Your task to perform on an android device: open app "PUBG MOBILE" (install if not already installed) and enter user name: "phenomenologically@gmail.com" and password: "artillery" Image 0: 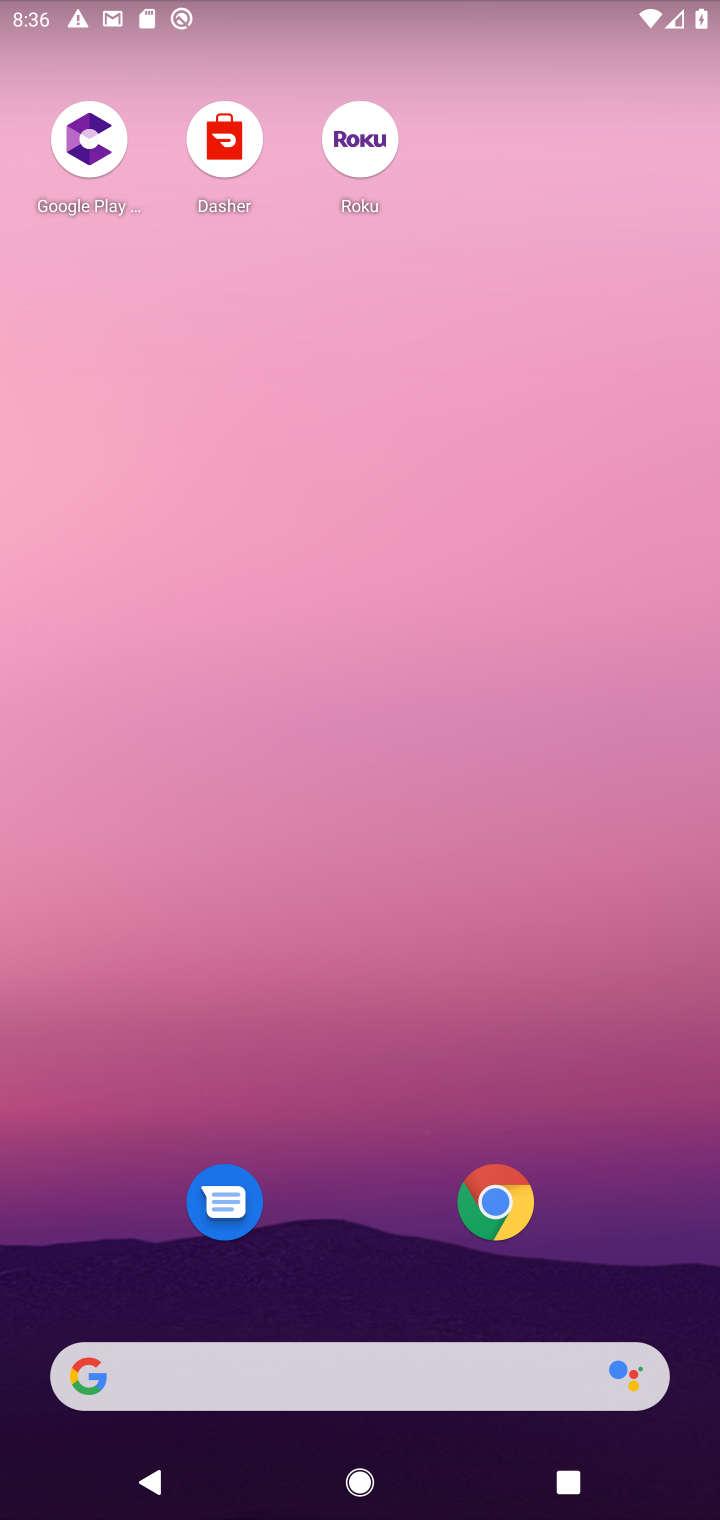
Step 0: drag from (601, 952) to (530, 158)
Your task to perform on an android device: open app "PUBG MOBILE" (install if not already installed) and enter user name: "phenomenologically@gmail.com" and password: "artillery" Image 1: 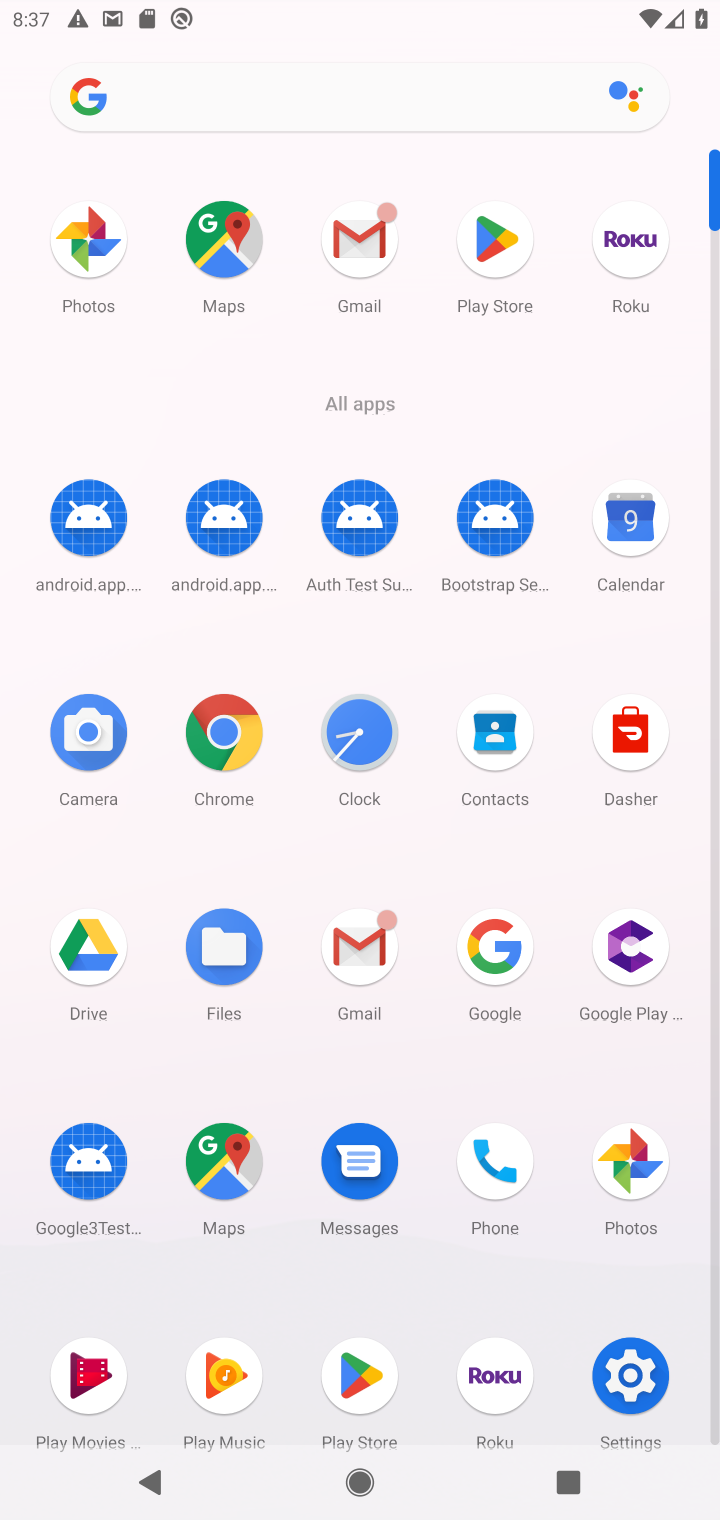
Step 1: click (370, 1366)
Your task to perform on an android device: open app "PUBG MOBILE" (install if not already installed) and enter user name: "phenomenologically@gmail.com" and password: "artillery" Image 2: 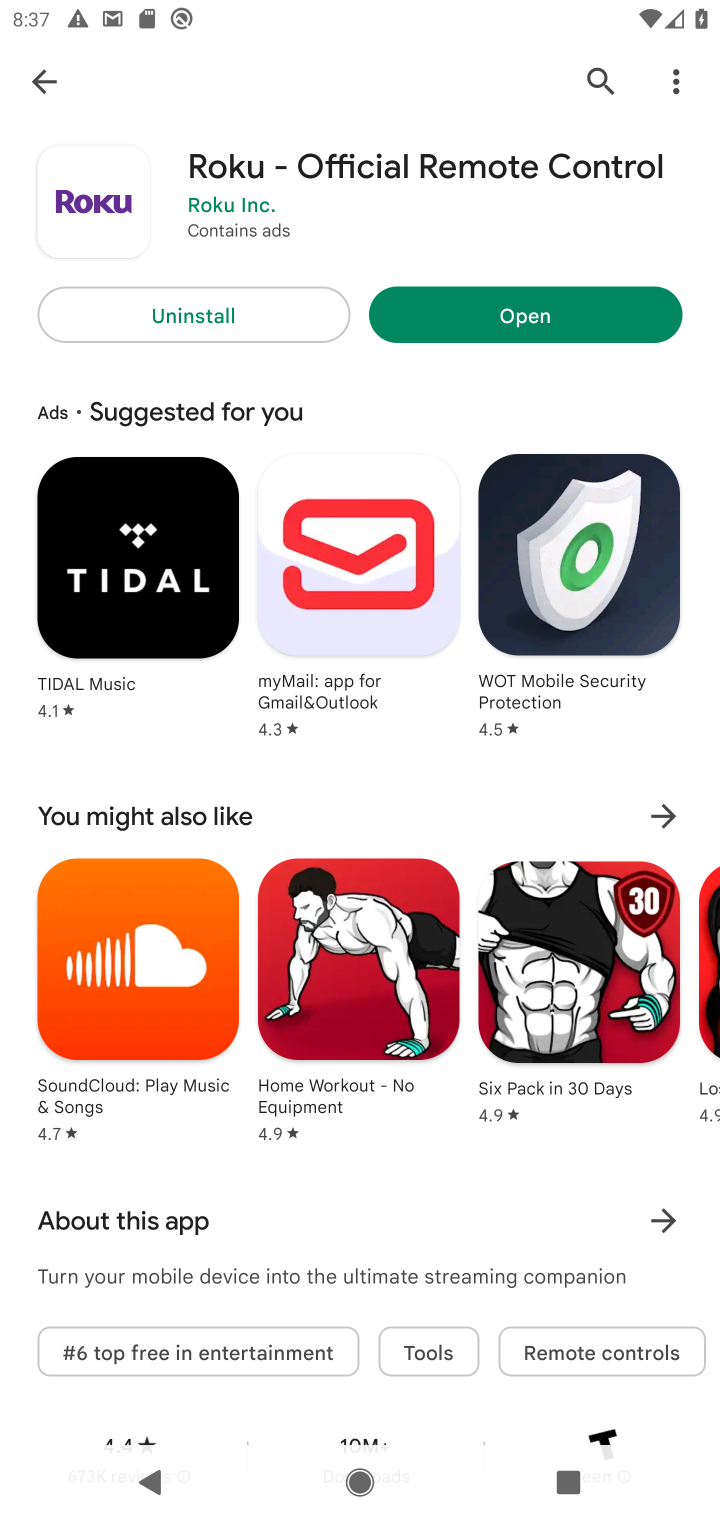
Step 2: press back button
Your task to perform on an android device: open app "PUBG MOBILE" (install if not already installed) and enter user name: "phenomenologically@gmail.com" and password: "artillery" Image 3: 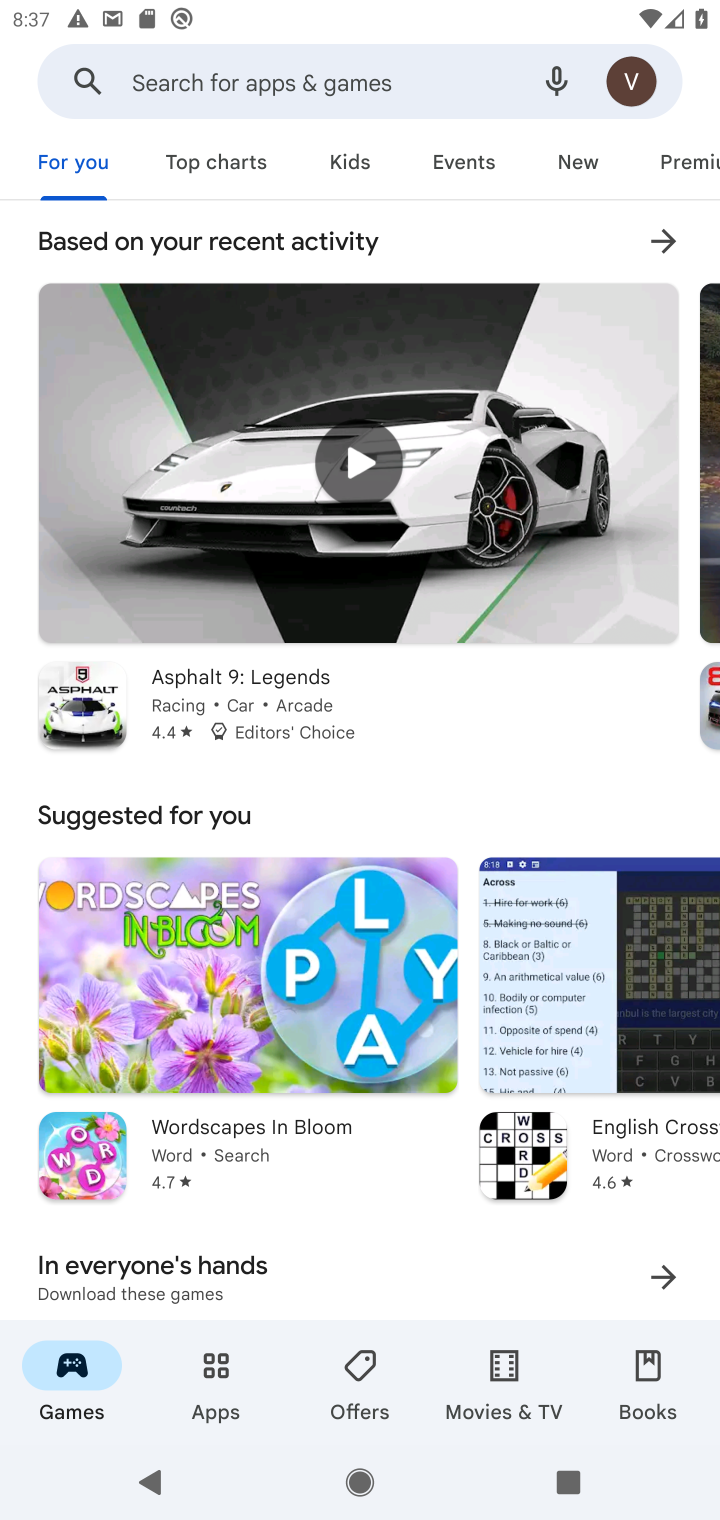
Step 3: click (415, 77)
Your task to perform on an android device: open app "PUBG MOBILE" (install if not already installed) and enter user name: "phenomenologically@gmail.com" and password: "artillery" Image 4: 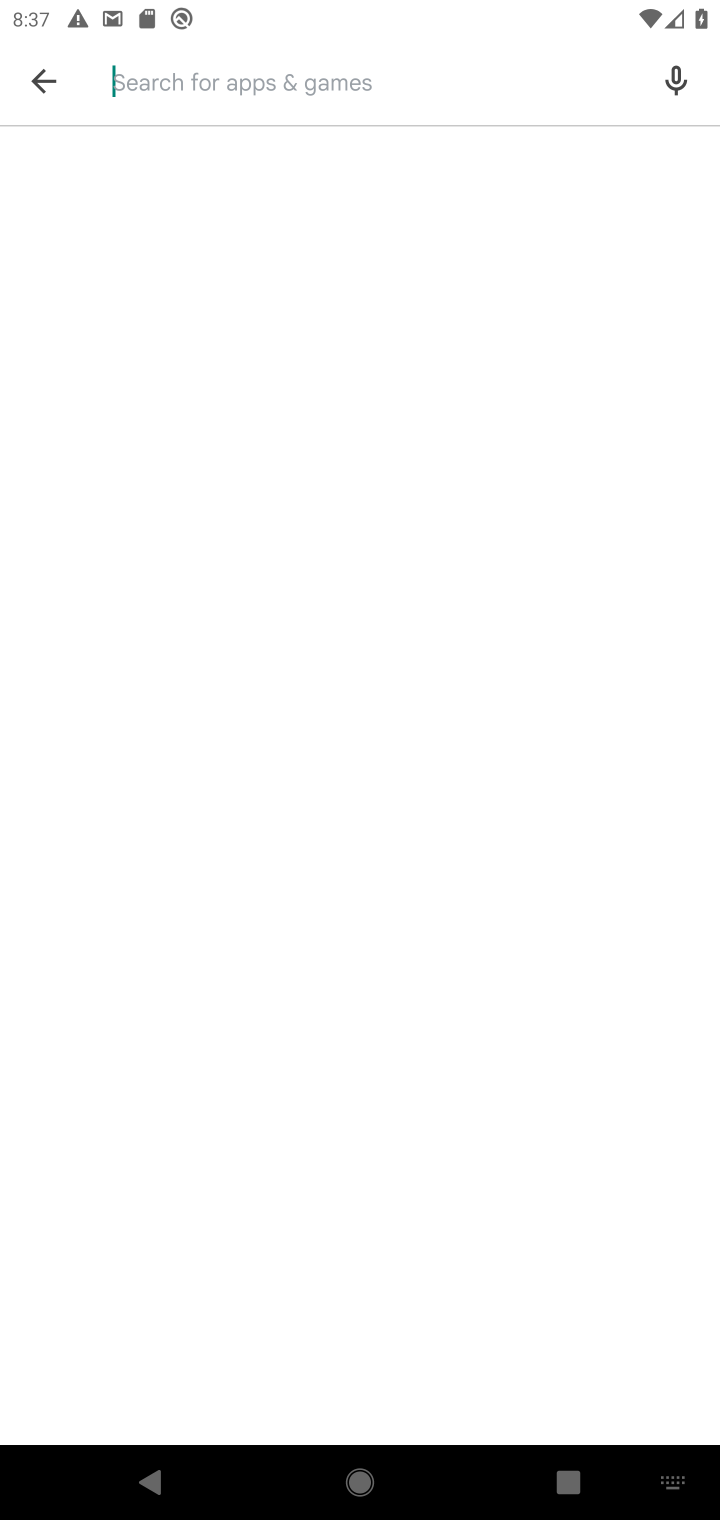
Step 4: type "PUBG MOBILE"
Your task to perform on an android device: open app "PUBG MOBILE" (install if not already installed) and enter user name: "phenomenologically@gmail.com" and password: "artillery" Image 5: 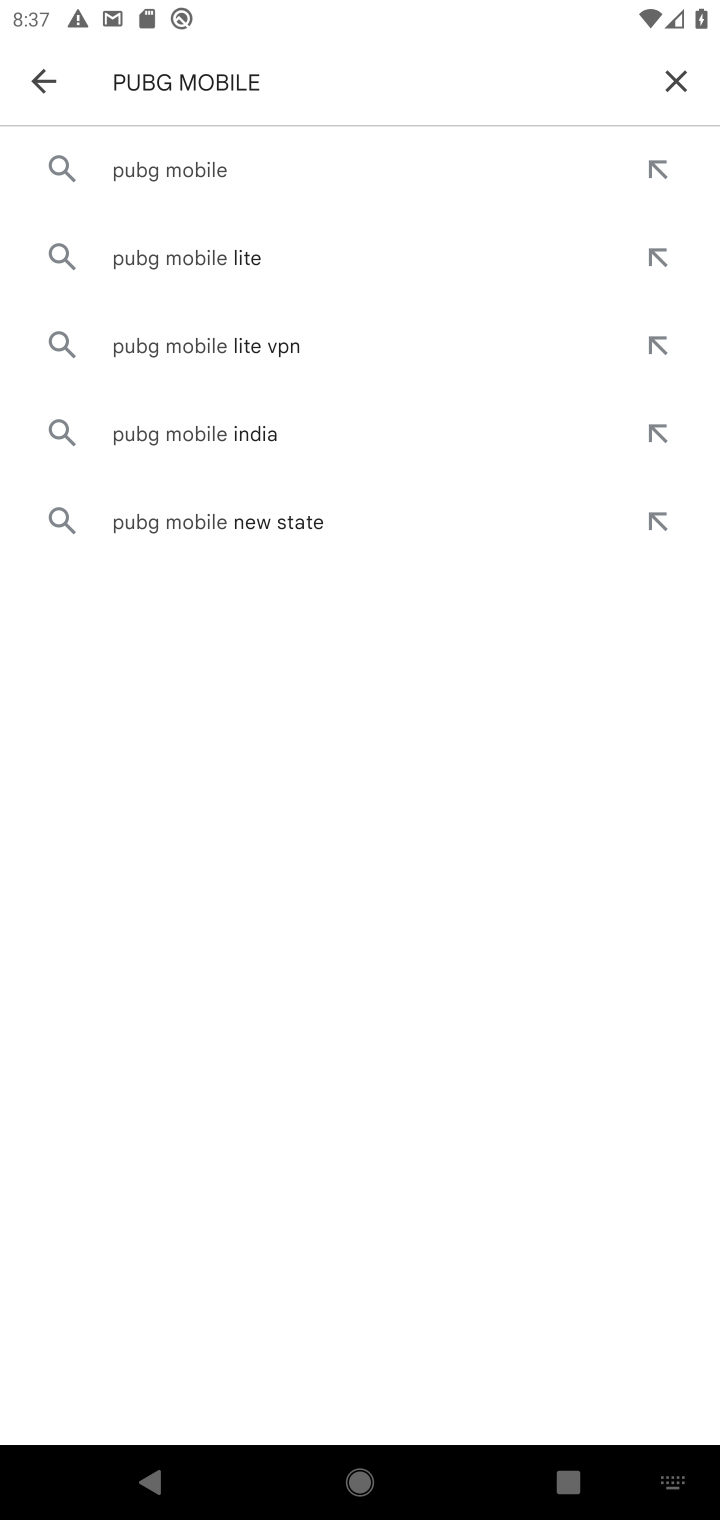
Step 5: click (185, 166)
Your task to perform on an android device: open app "PUBG MOBILE" (install if not already installed) and enter user name: "phenomenologically@gmail.com" and password: "artillery" Image 6: 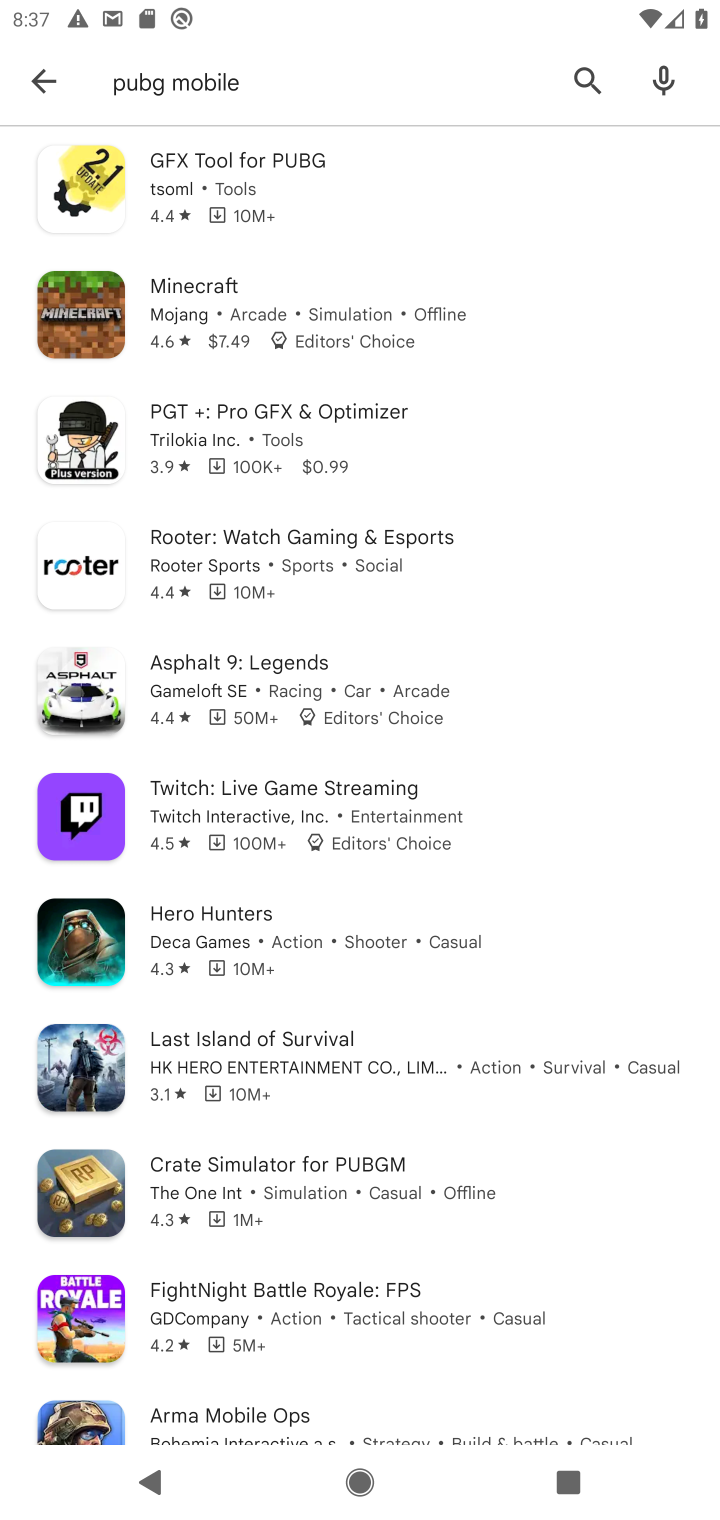
Step 6: task complete